Your task to perform on an android device: turn on priority inbox in the gmail app Image 0: 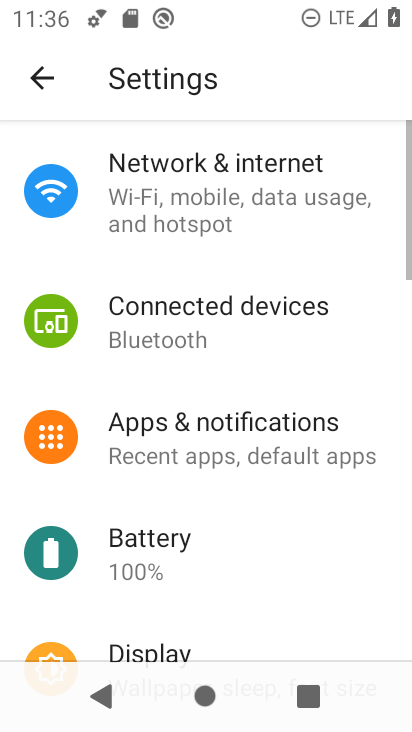
Step 0: press home button
Your task to perform on an android device: turn on priority inbox in the gmail app Image 1: 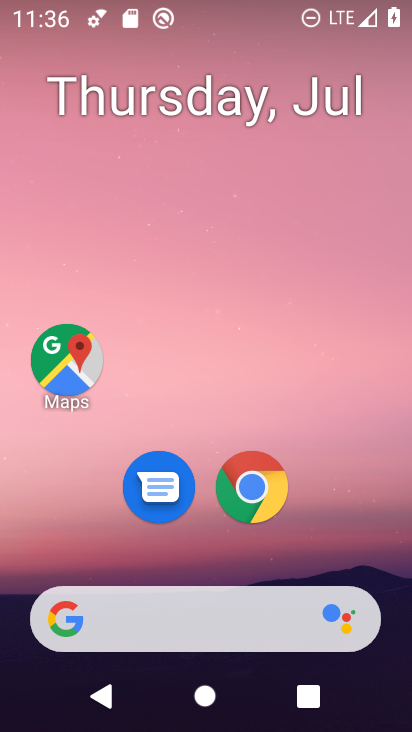
Step 1: drag from (267, 626) to (264, 193)
Your task to perform on an android device: turn on priority inbox in the gmail app Image 2: 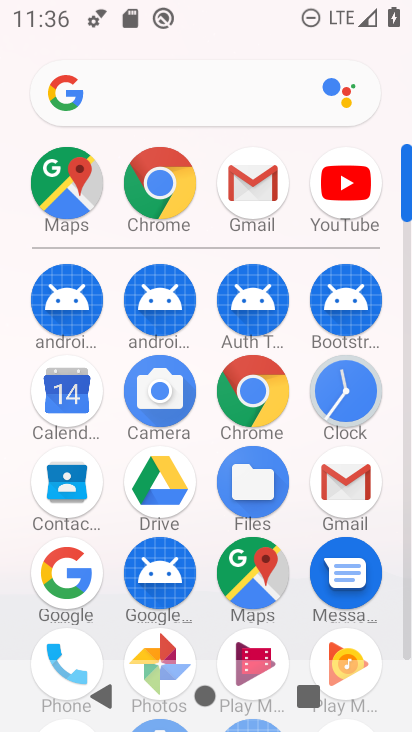
Step 2: drag from (195, 504) to (187, 315)
Your task to perform on an android device: turn on priority inbox in the gmail app Image 3: 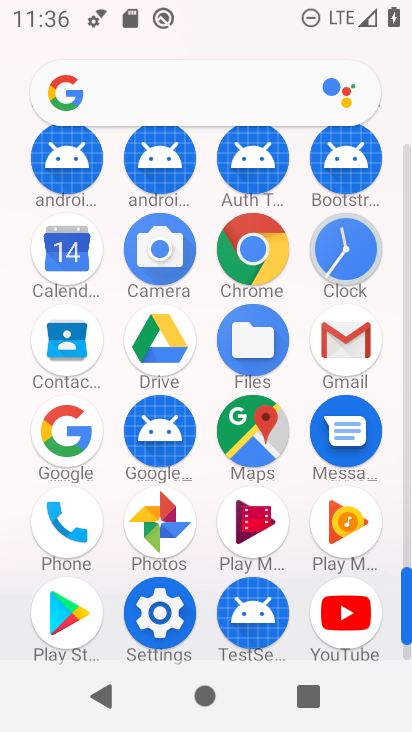
Step 3: click (353, 351)
Your task to perform on an android device: turn on priority inbox in the gmail app Image 4: 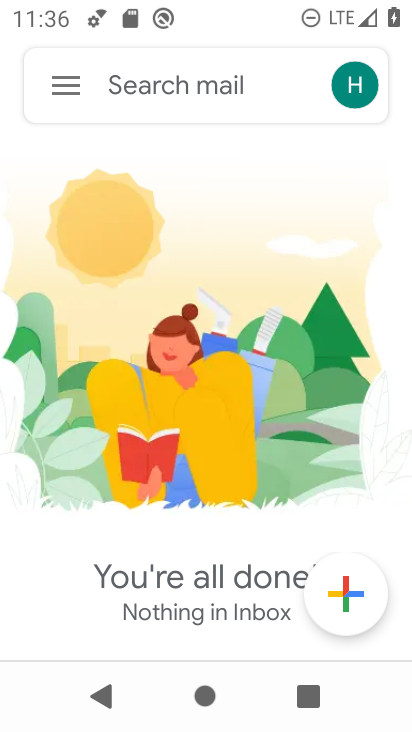
Step 4: click (68, 95)
Your task to perform on an android device: turn on priority inbox in the gmail app Image 5: 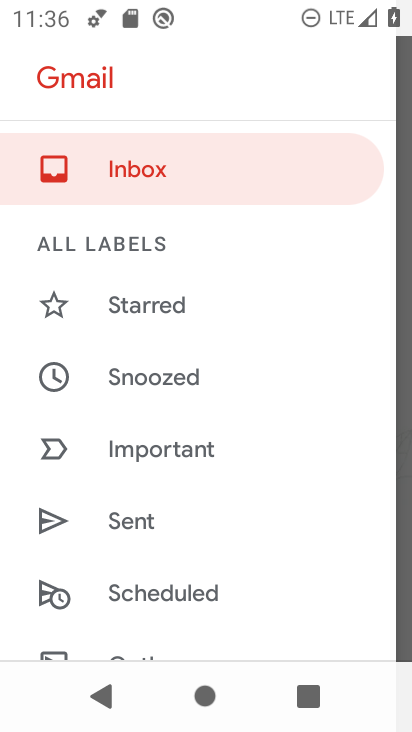
Step 5: drag from (143, 467) to (132, 217)
Your task to perform on an android device: turn on priority inbox in the gmail app Image 6: 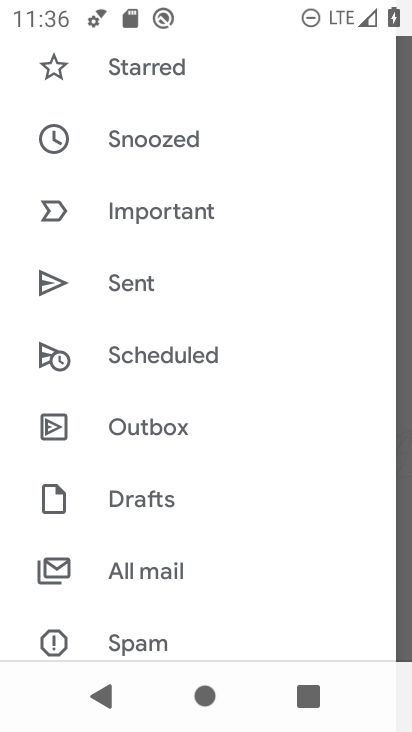
Step 6: drag from (176, 537) to (175, 237)
Your task to perform on an android device: turn on priority inbox in the gmail app Image 7: 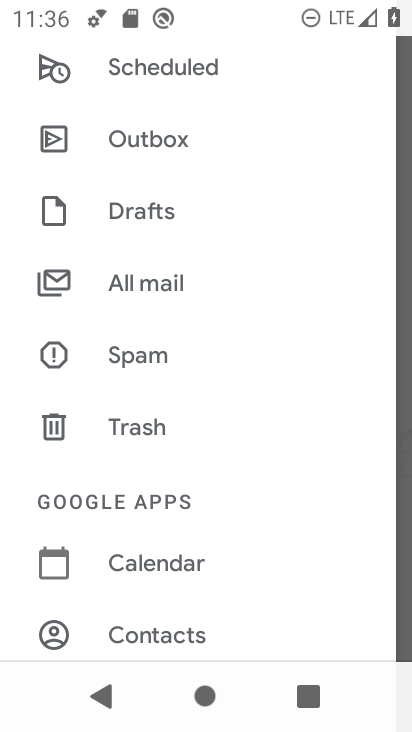
Step 7: drag from (147, 579) to (151, 302)
Your task to perform on an android device: turn on priority inbox in the gmail app Image 8: 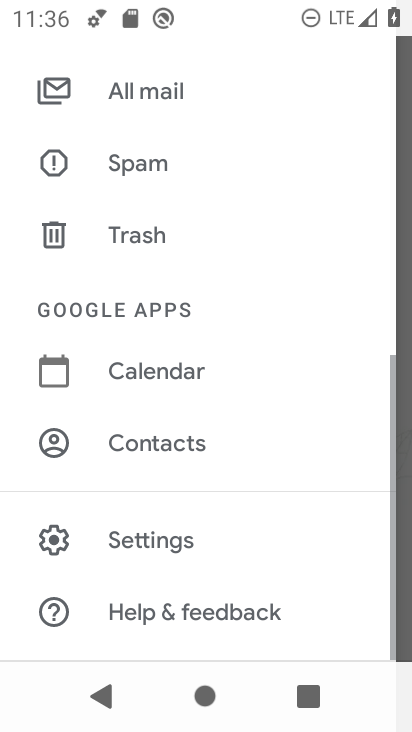
Step 8: click (140, 535)
Your task to perform on an android device: turn on priority inbox in the gmail app Image 9: 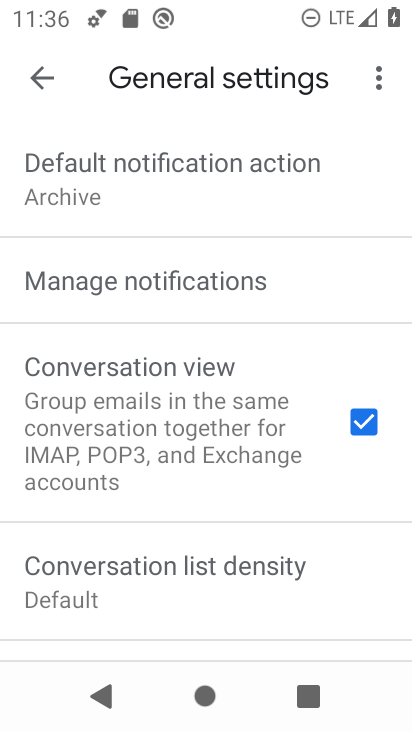
Step 9: click (49, 87)
Your task to perform on an android device: turn on priority inbox in the gmail app Image 10: 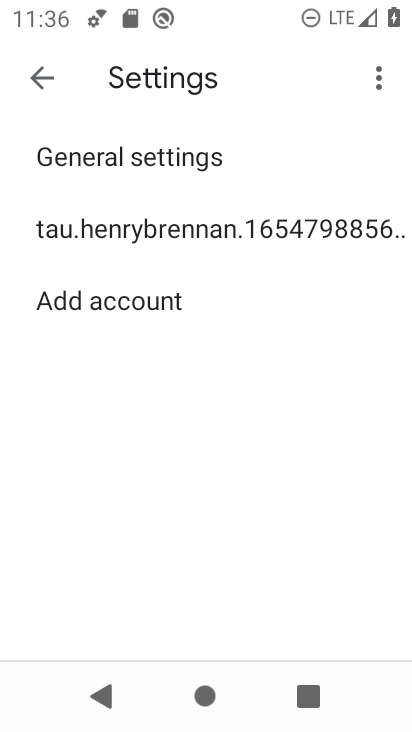
Step 10: click (160, 225)
Your task to perform on an android device: turn on priority inbox in the gmail app Image 11: 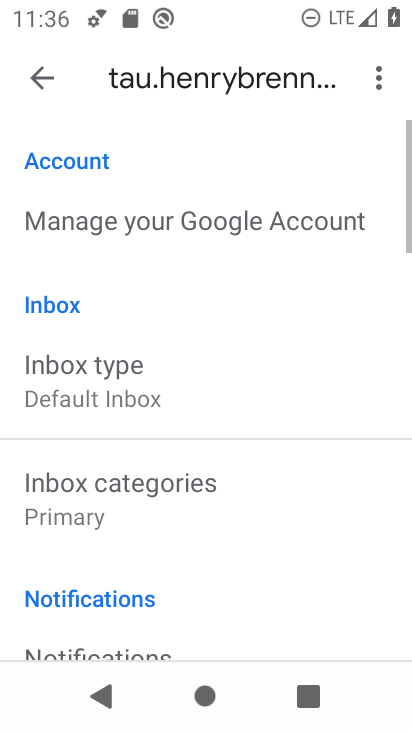
Step 11: click (121, 380)
Your task to perform on an android device: turn on priority inbox in the gmail app Image 12: 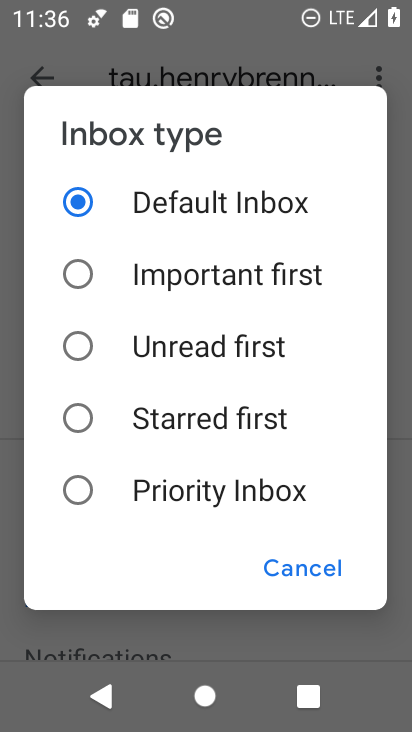
Step 12: click (82, 486)
Your task to perform on an android device: turn on priority inbox in the gmail app Image 13: 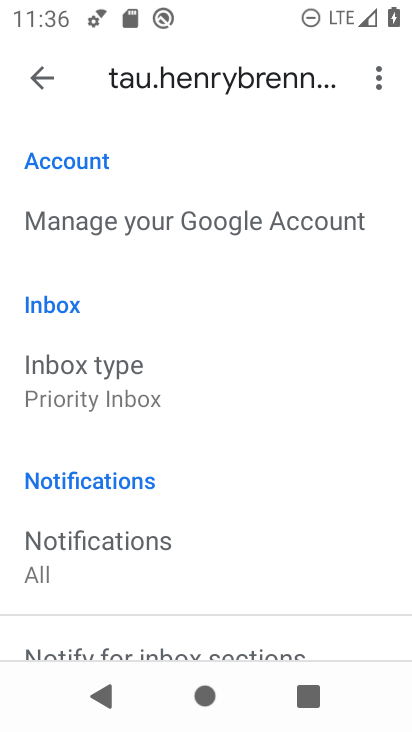
Step 13: task complete